Your task to perform on an android device: open app "Spotify" Image 0: 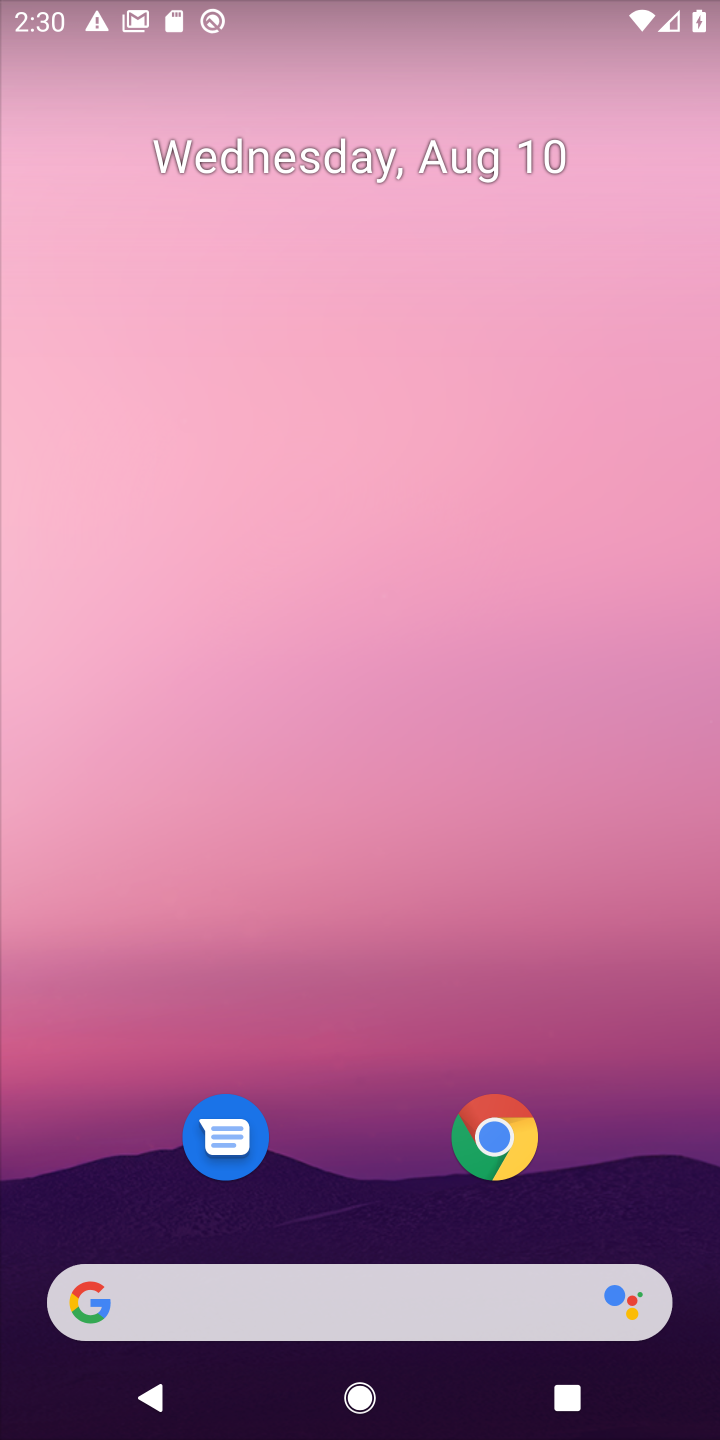
Step 0: drag from (388, 1242) to (399, 264)
Your task to perform on an android device: open app "Spotify" Image 1: 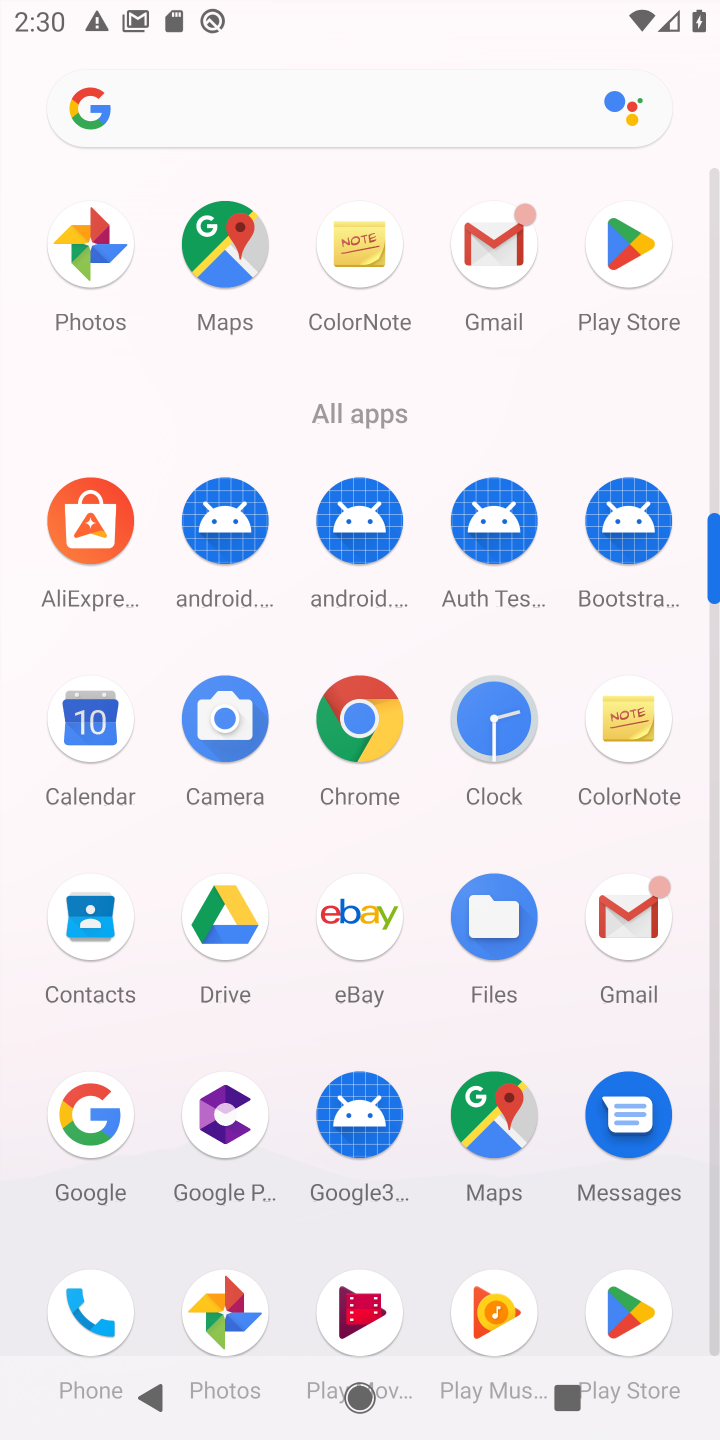
Step 1: click (643, 272)
Your task to perform on an android device: open app "Spotify" Image 2: 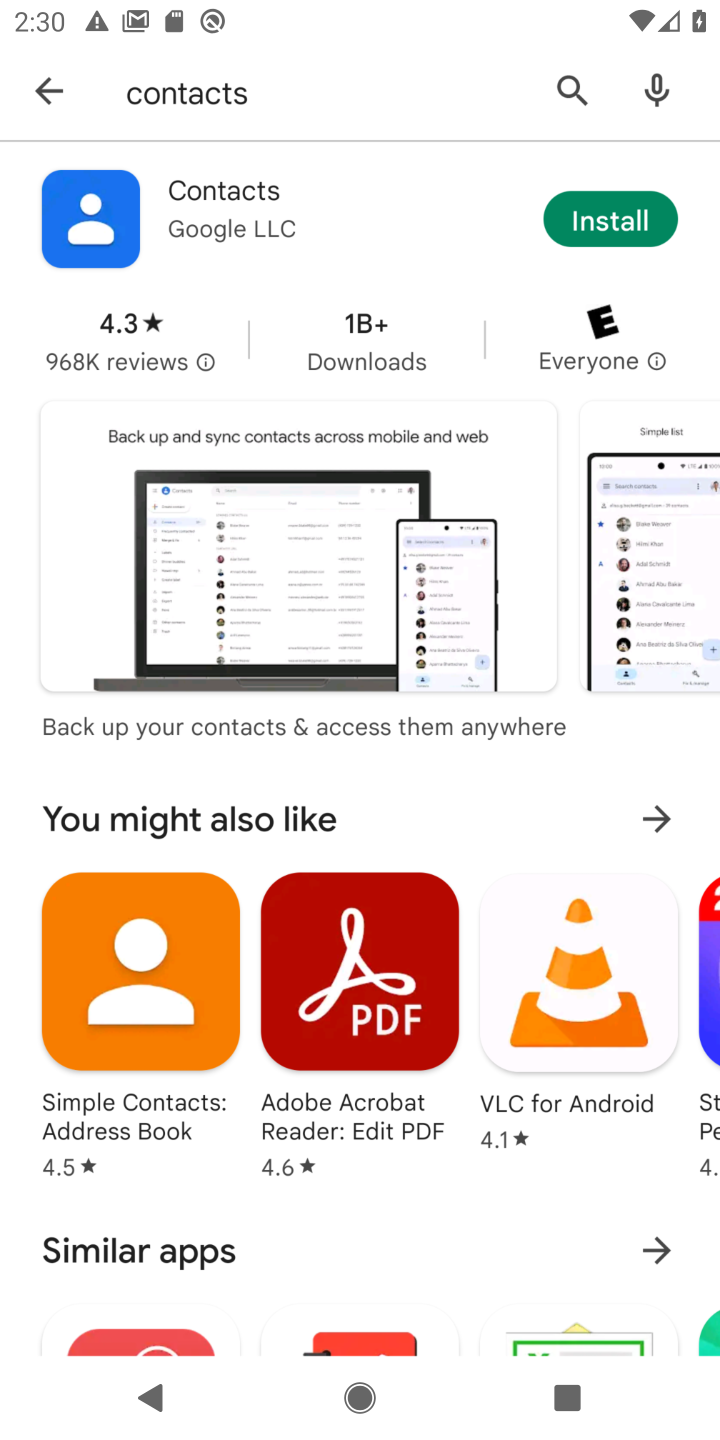
Step 2: click (266, 107)
Your task to perform on an android device: open app "Spotify" Image 3: 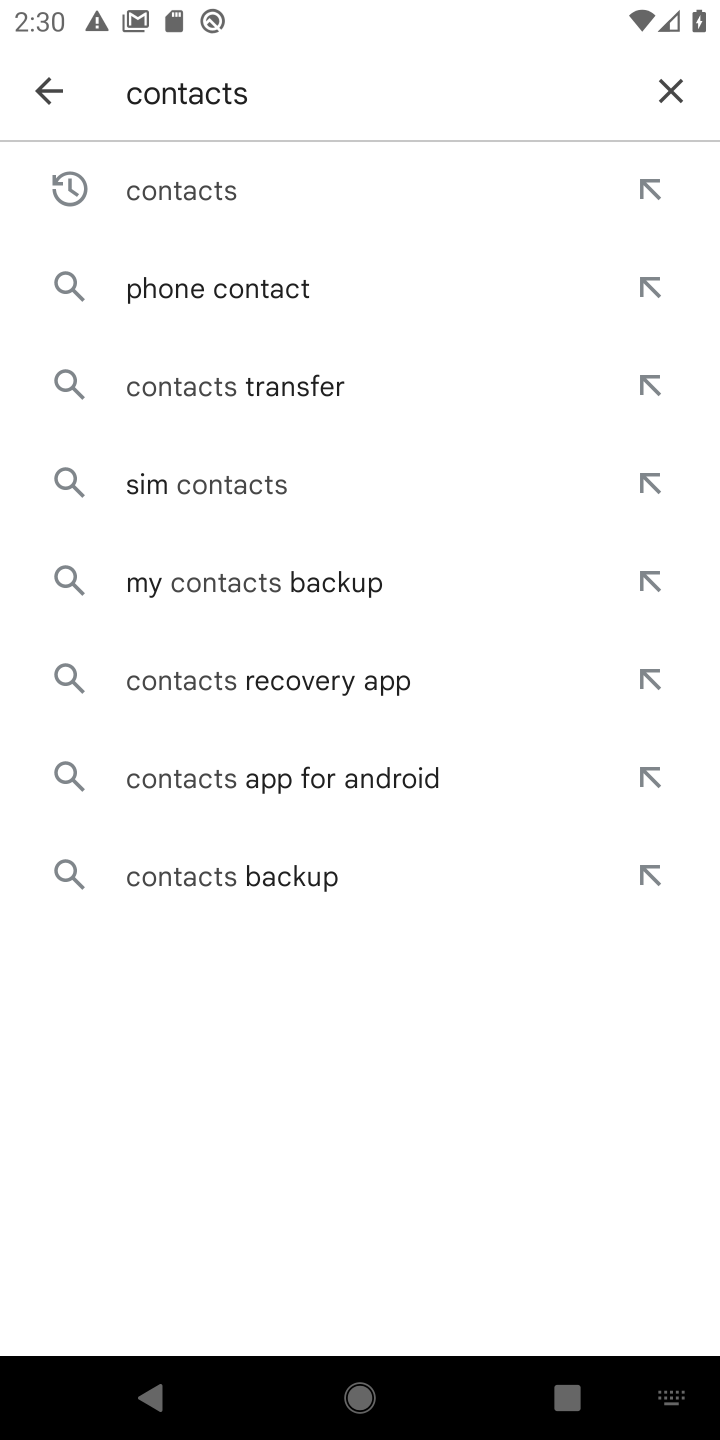
Step 3: click (674, 79)
Your task to perform on an android device: open app "Spotify" Image 4: 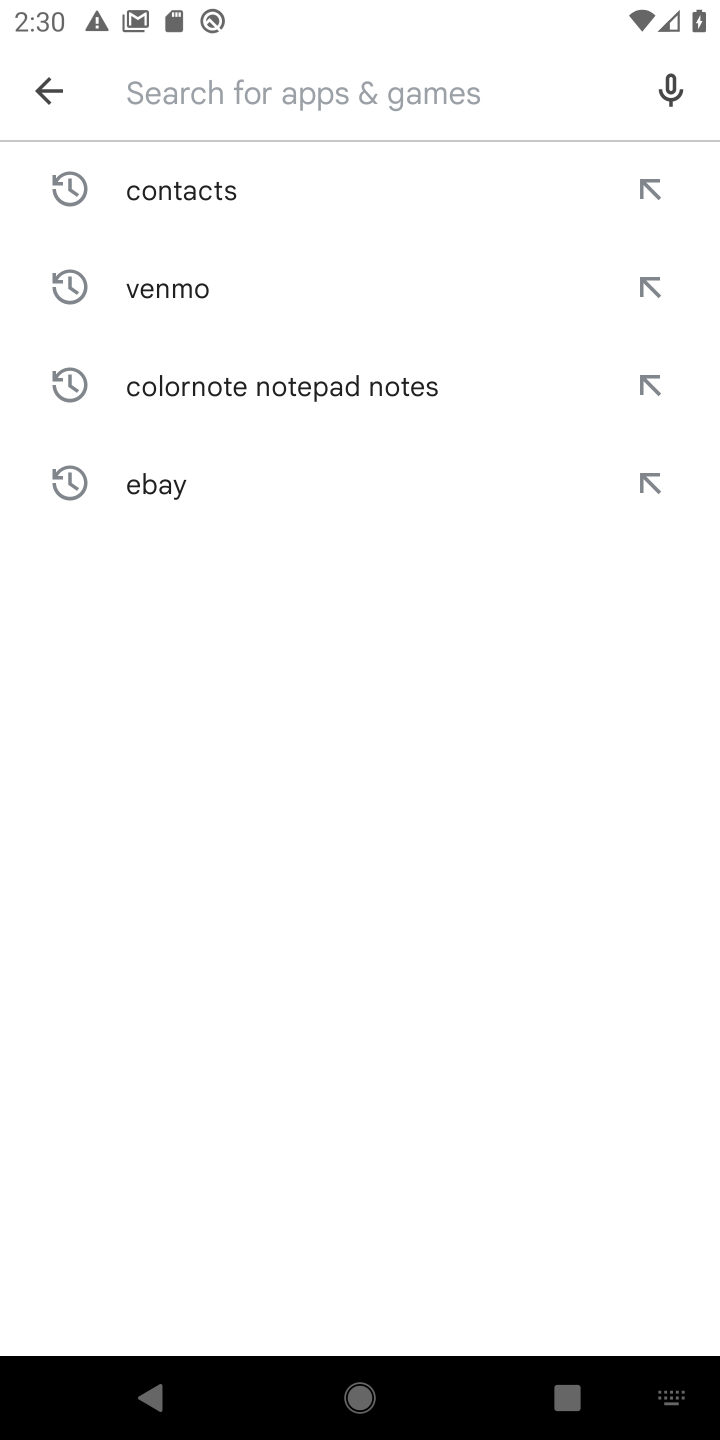
Step 4: type "spotify"
Your task to perform on an android device: open app "Spotify" Image 5: 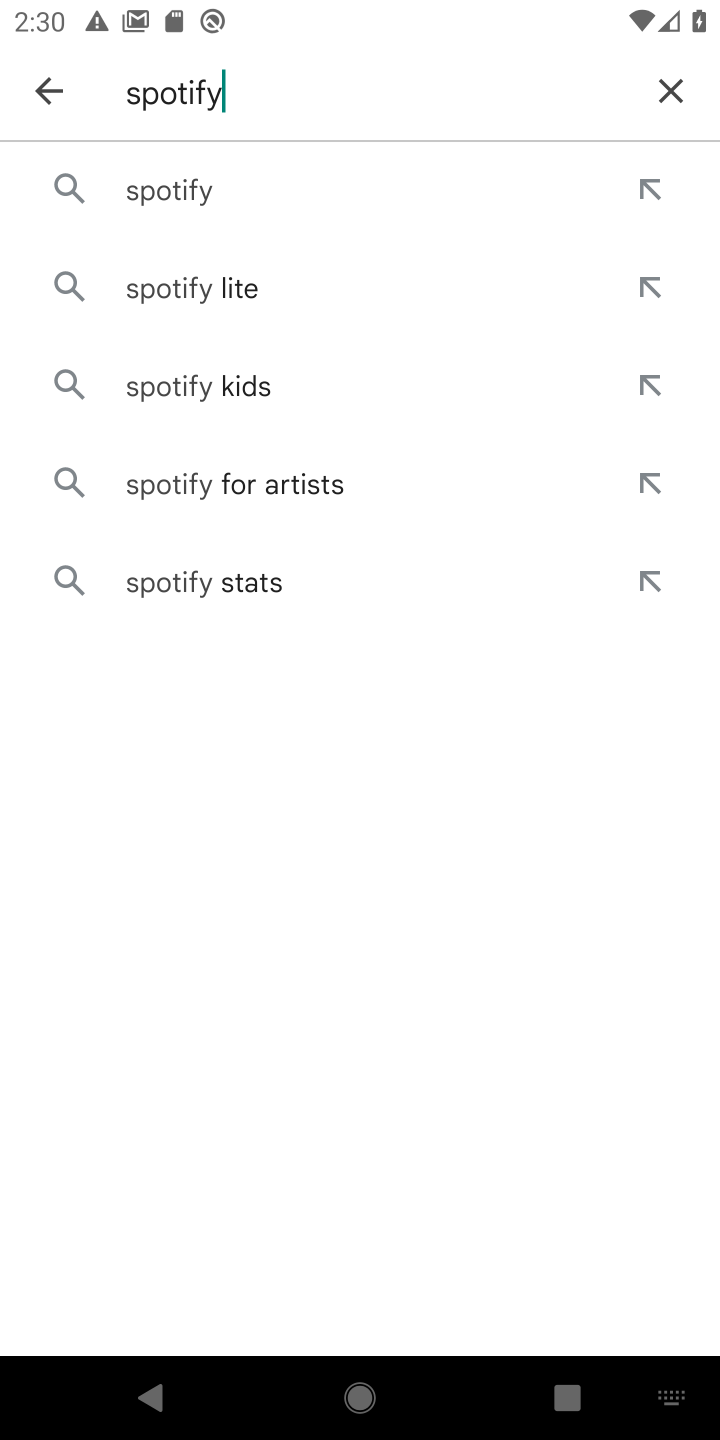
Step 5: click (221, 203)
Your task to perform on an android device: open app "Spotify" Image 6: 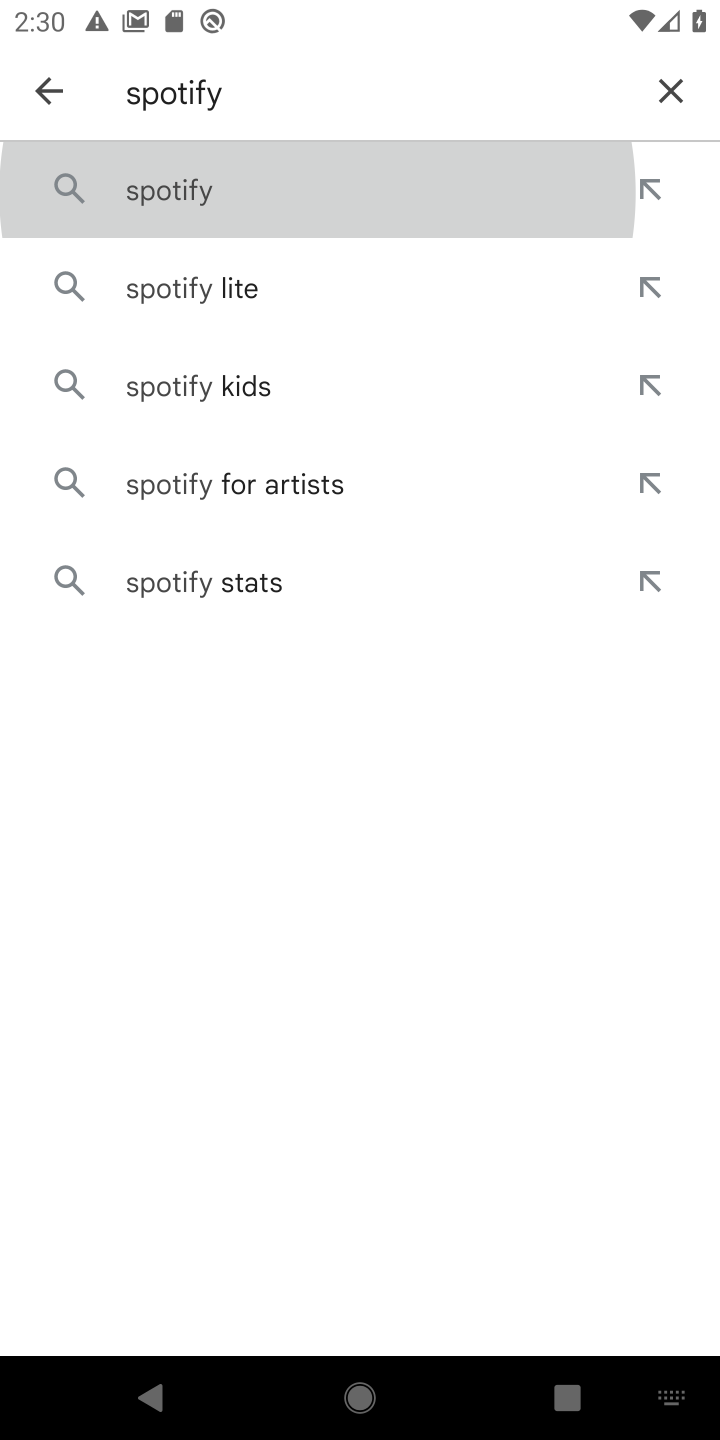
Step 6: click (141, 215)
Your task to perform on an android device: open app "Spotify" Image 7: 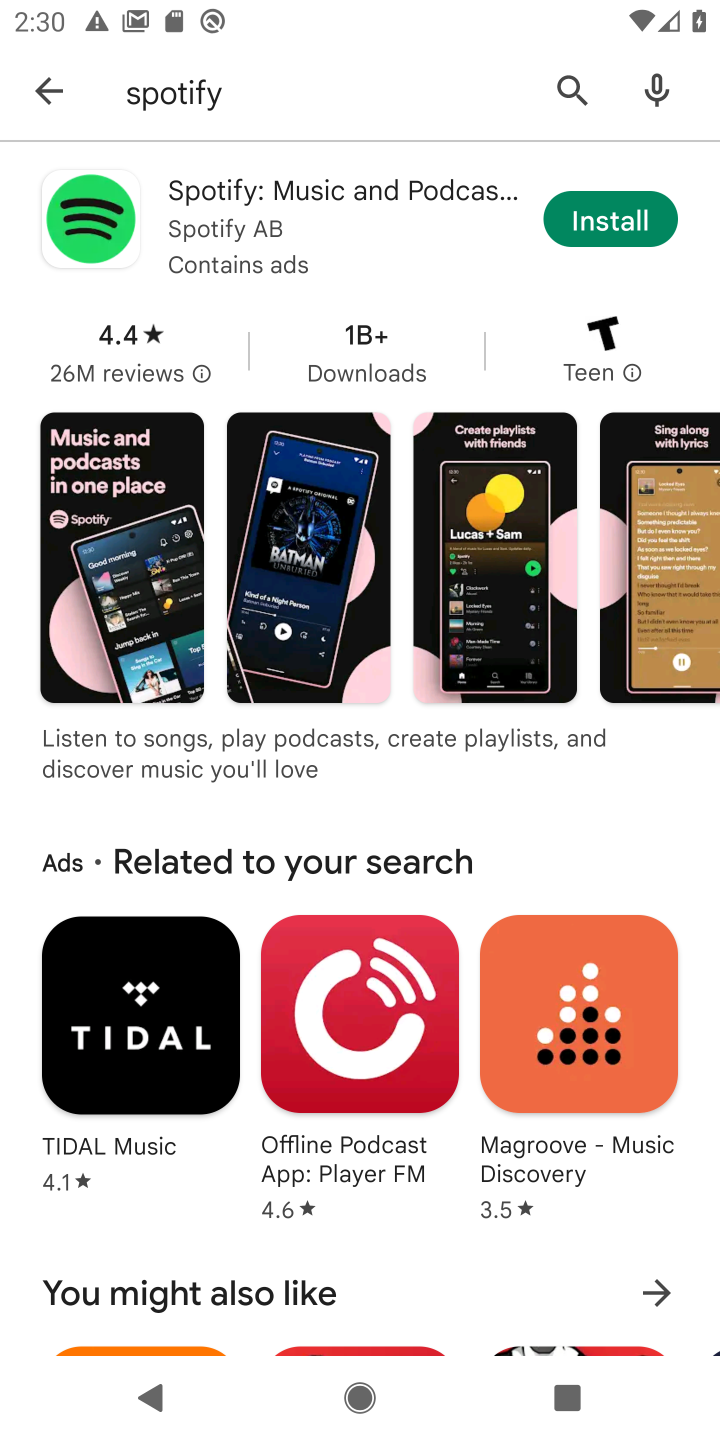
Step 7: task complete